Your task to perform on an android device: toggle airplane mode Image 0: 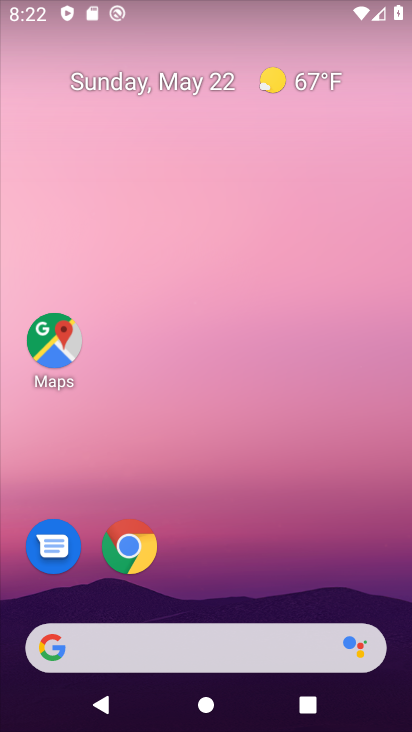
Step 0: drag from (206, 587) to (277, 24)
Your task to perform on an android device: toggle airplane mode Image 1: 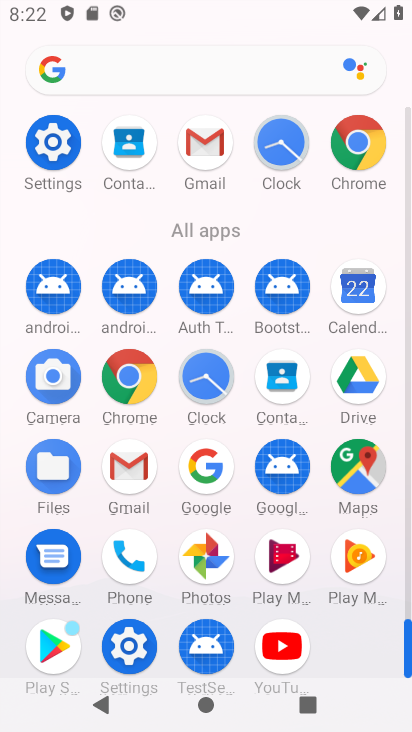
Step 1: click (50, 151)
Your task to perform on an android device: toggle airplane mode Image 2: 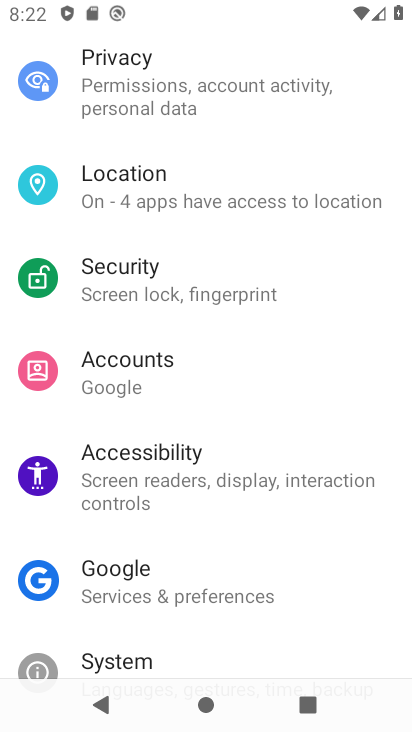
Step 2: drag from (218, 197) to (208, 604)
Your task to perform on an android device: toggle airplane mode Image 3: 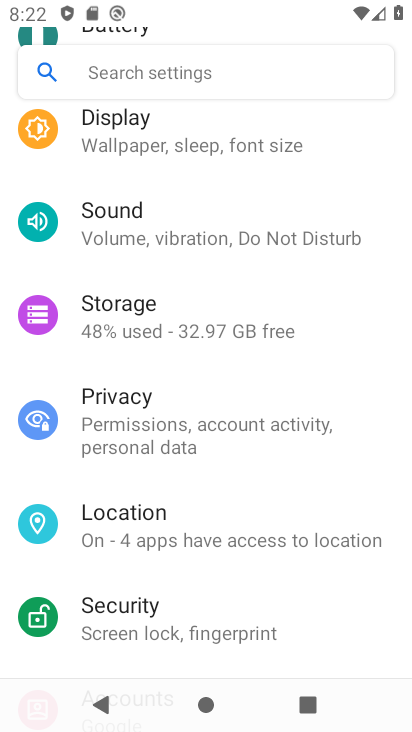
Step 3: drag from (272, 281) to (278, 595)
Your task to perform on an android device: toggle airplane mode Image 4: 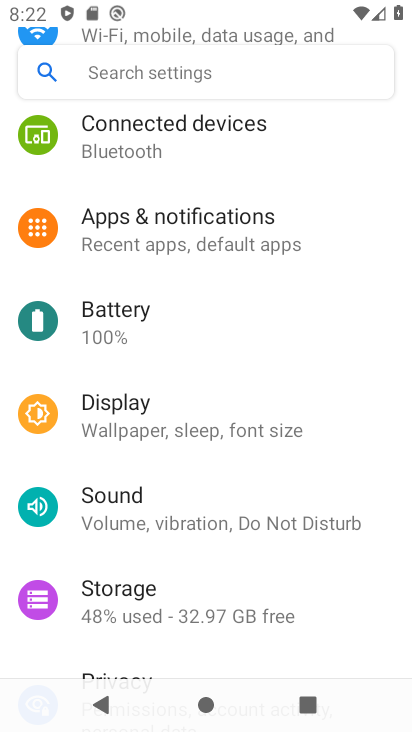
Step 4: drag from (218, 303) to (216, 623)
Your task to perform on an android device: toggle airplane mode Image 5: 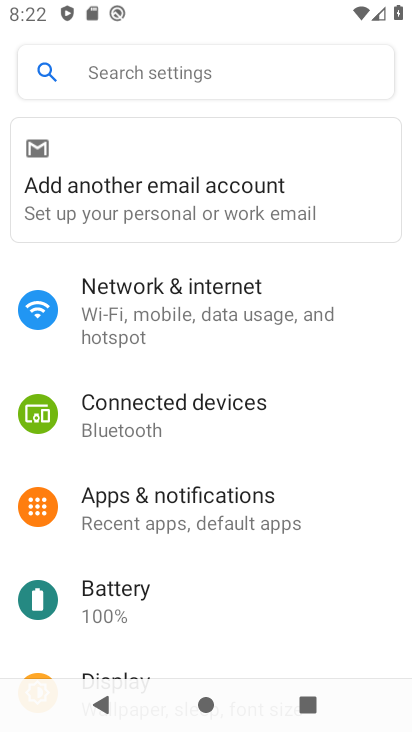
Step 5: click (188, 308)
Your task to perform on an android device: toggle airplane mode Image 6: 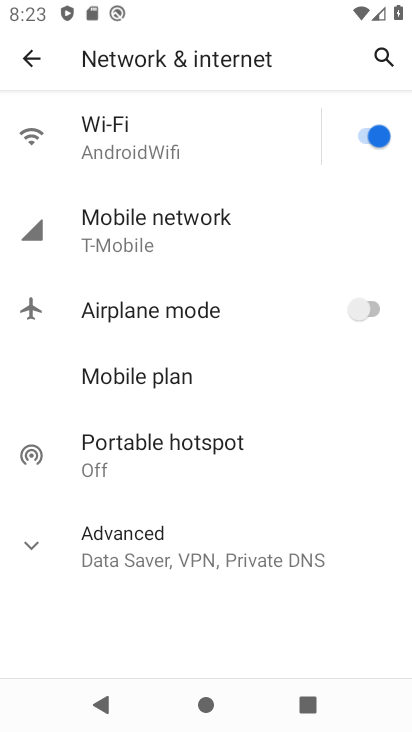
Step 6: click (369, 309)
Your task to perform on an android device: toggle airplane mode Image 7: 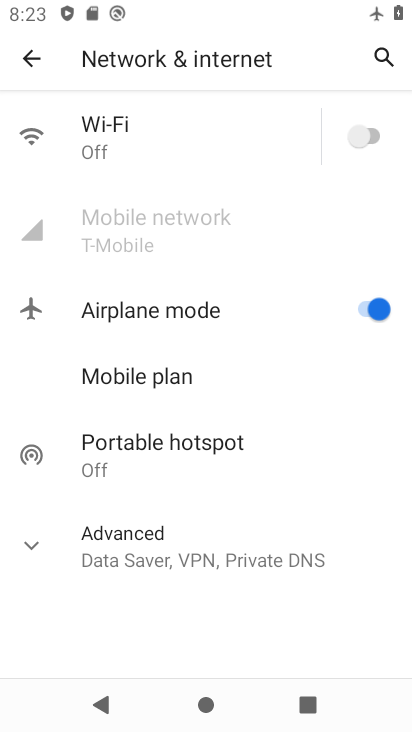
Step 7: task complete